Your task to perform on an android device: Open accessibility settings Image 0: 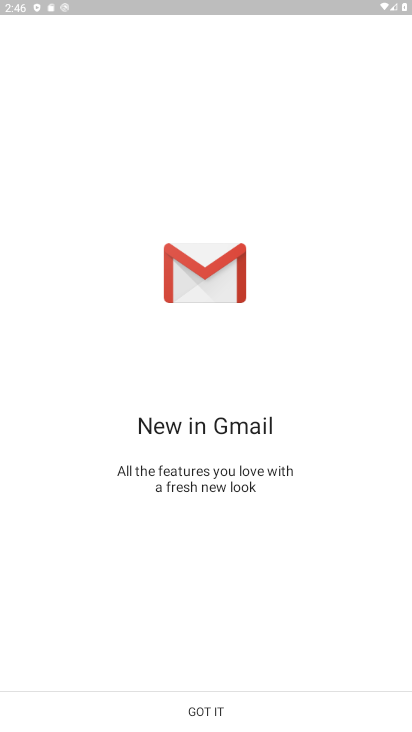
Step 0: press home button
Your task to perform on an android device: Open accessibility settings Image 1: 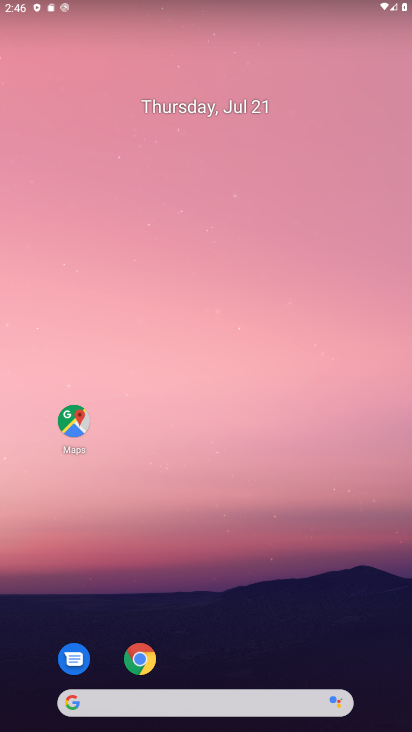
Step 1: drag from (265, 650) to (174, 190)
Your task to perform on an android device: Open accessibility settings Image 2: 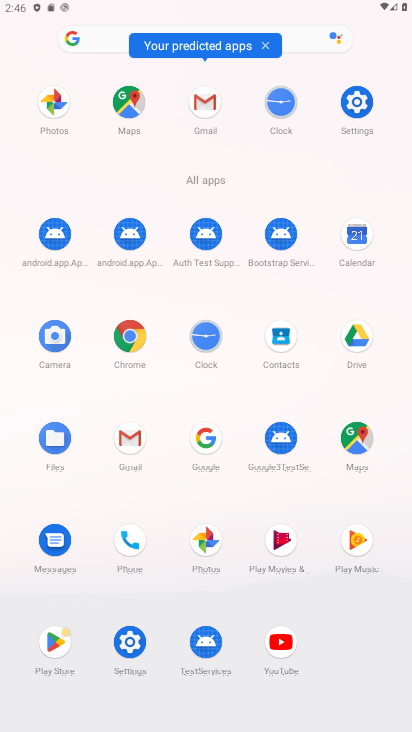
Step 2: click (351, 103)
Your task to perform on an android device: Open accessibility settings Image 3: 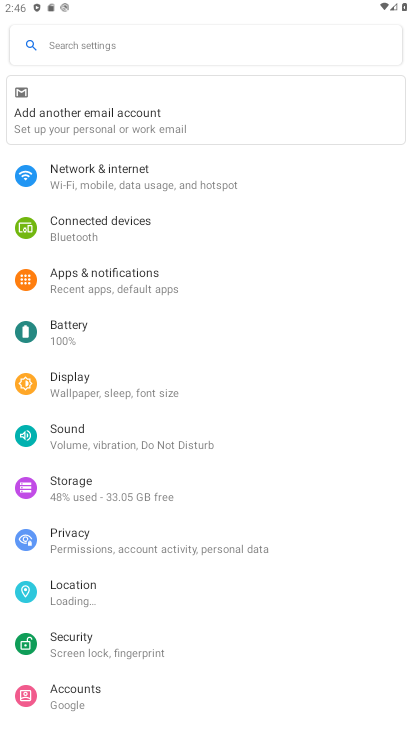
Step 3: drag from (167, 628) to (143, 382)
Your task to perform on an android device: Open accessibility settings Image 4: 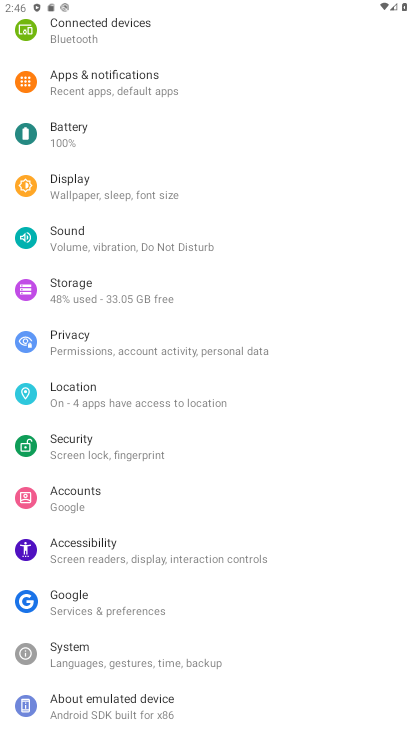
Step 4: click (165, 546)
Your task to perform on an android device: Open accessibility settings Image 5: 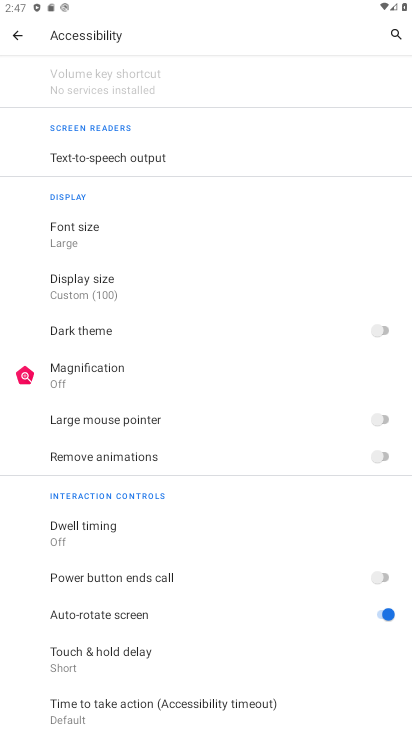
Step 5: task complete